Your task to perform on an android device: set the timer Image 0: 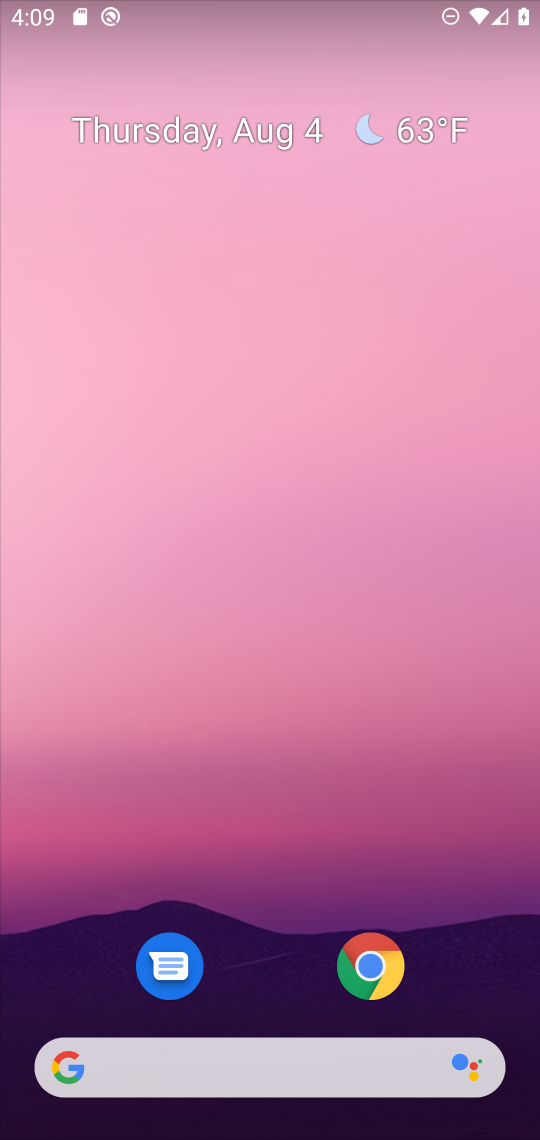
Step 0: drag from (78, 582) to (173, 220)
Your task to perform on an android device: set the timer Image 1: 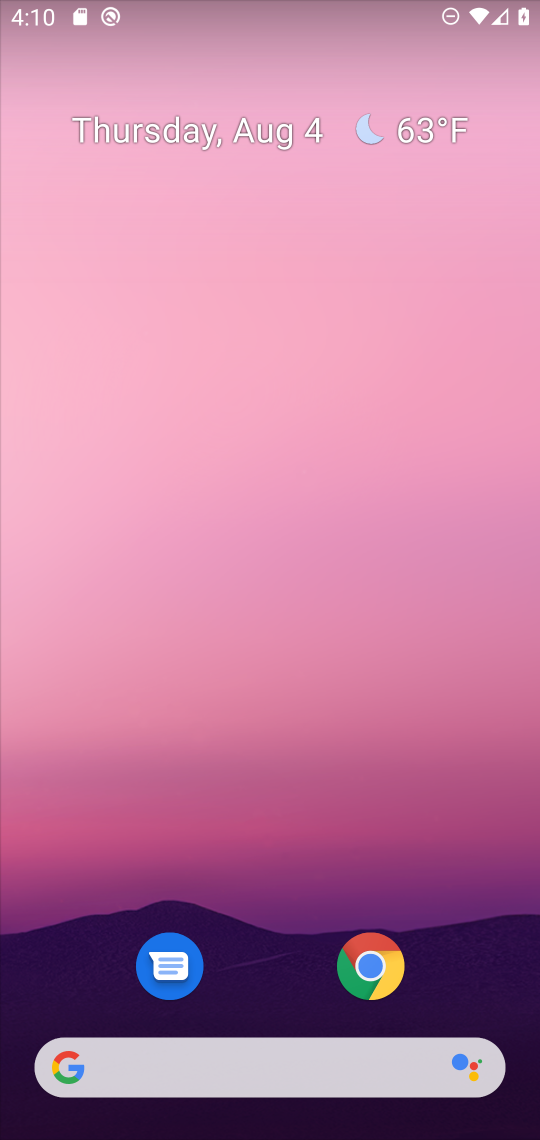
Step 1: drag from (310, 775) to (317, 200)
Your task to perform on an android device: set the timer Image 2: 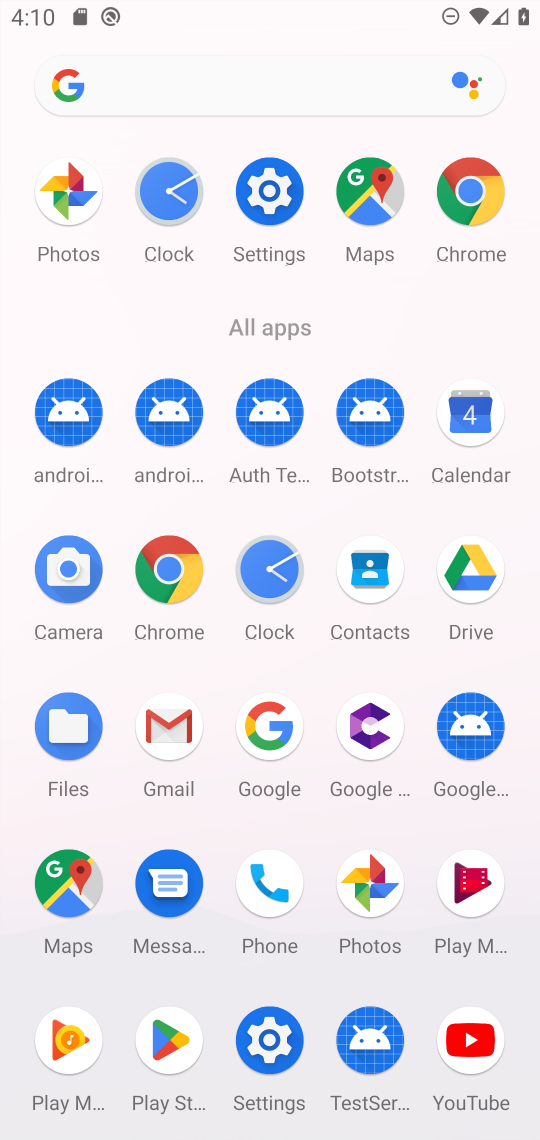
Step 2: click (286, 566)
Your task to perform on an android device: set the timer Image 3: 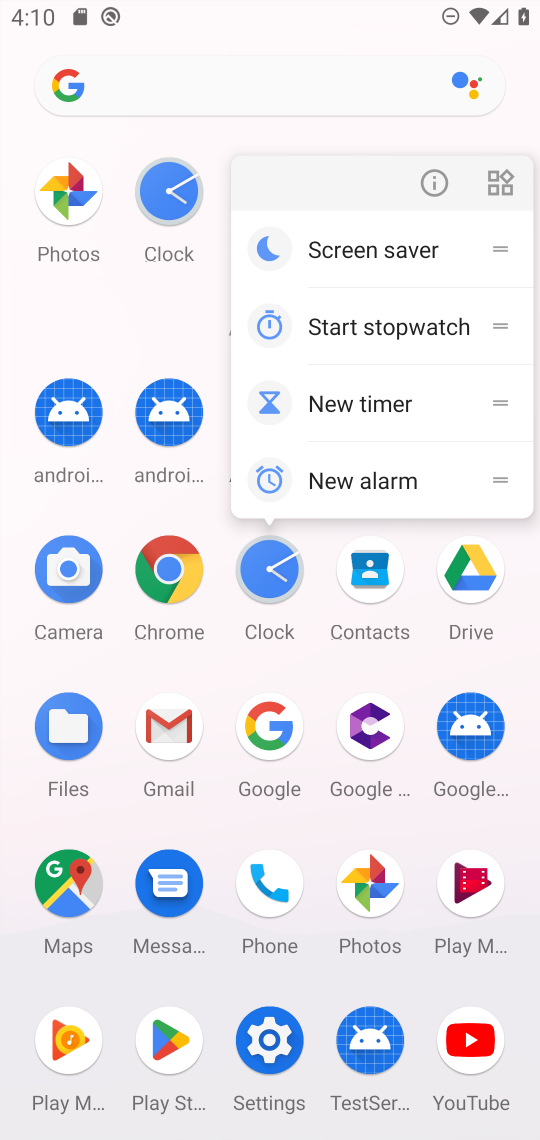
Step 3: click (286, 564)
Your task to perform on an android device: set the timer Image 4: 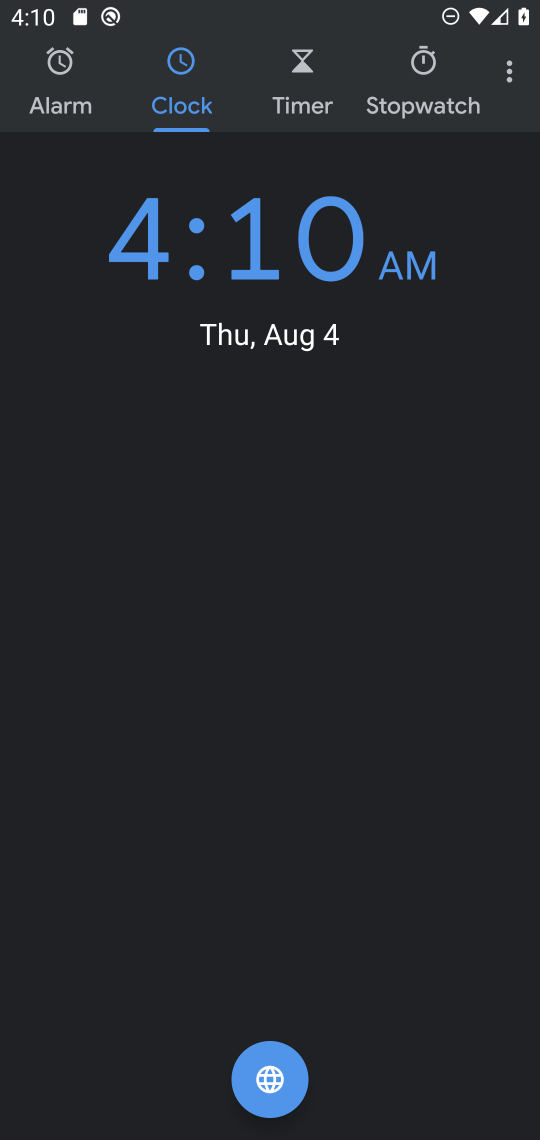
Step 4: click (277, 86)
Your task to perform on an android device: set the timer Image 5: 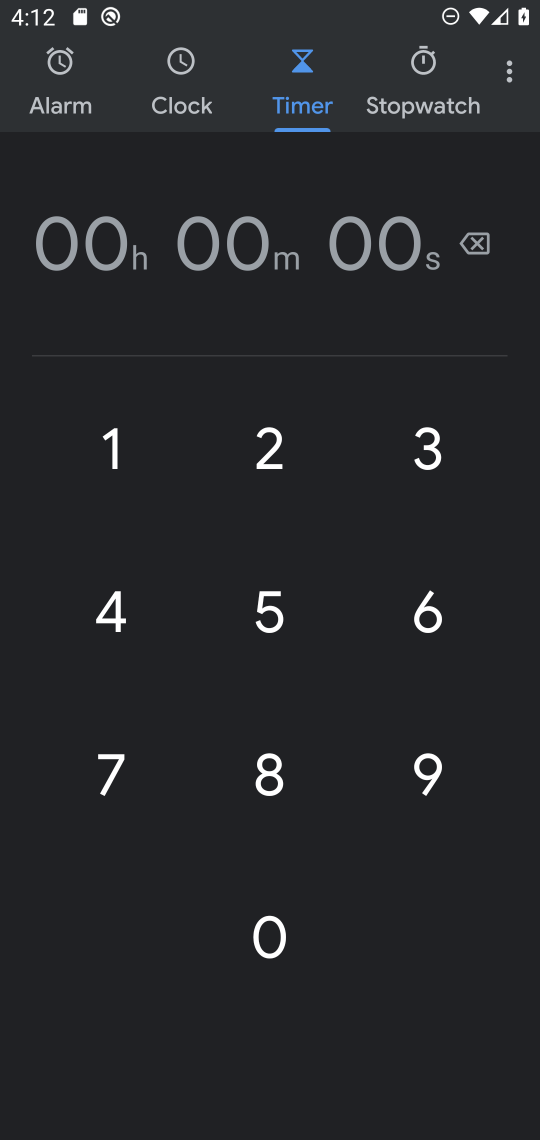
Step 5: click (251, 459)
Your task to perform on an android device: set the timer Image 6: 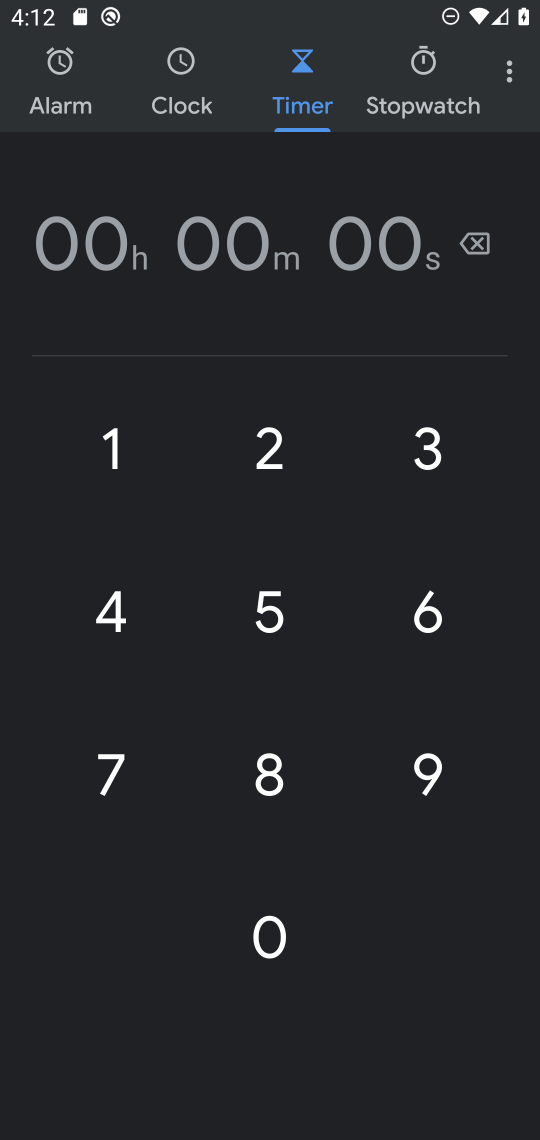
Step 6: click (249, 660)
Your task to perform on an android device: set the timer Image 7: 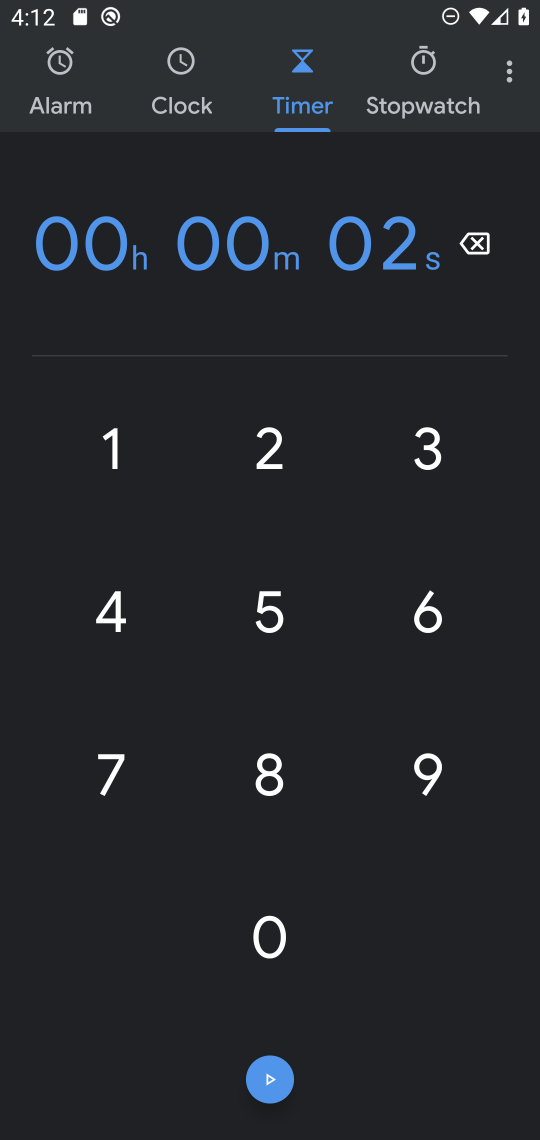
Step 7: click (231, 536)
Your task to perform on an android device: set the timer Image 8: 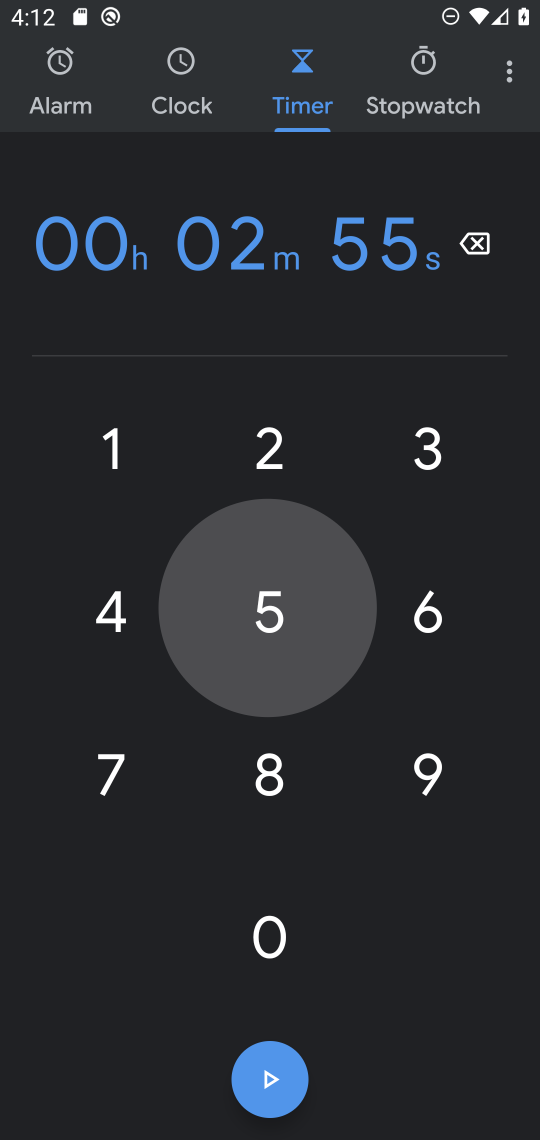
Step 8: click (247, 644)
Your task to perform on an android device: set the timer Image 9: 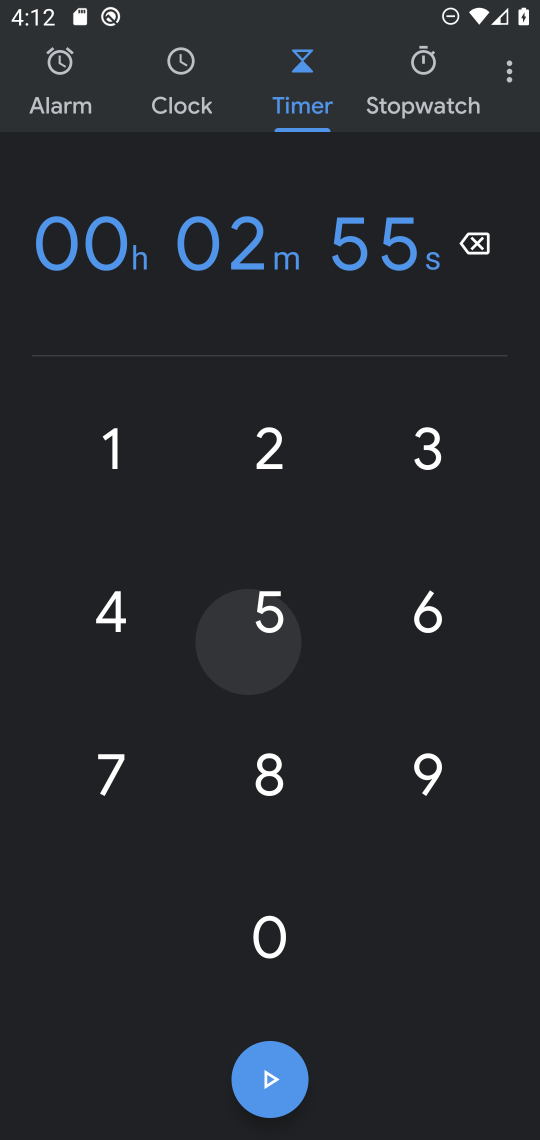
Step 9: click (214, 524)
Your task to perform on an android device: set the timer Image 10: 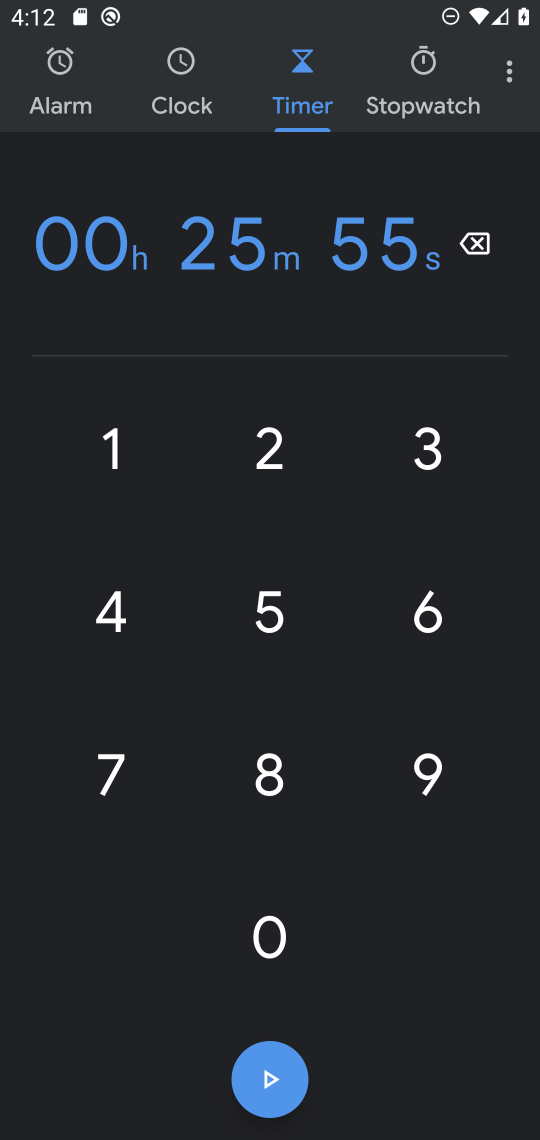
Step 10: click (219, 626)
Your task to perform on an android device: set the timer Image 11: 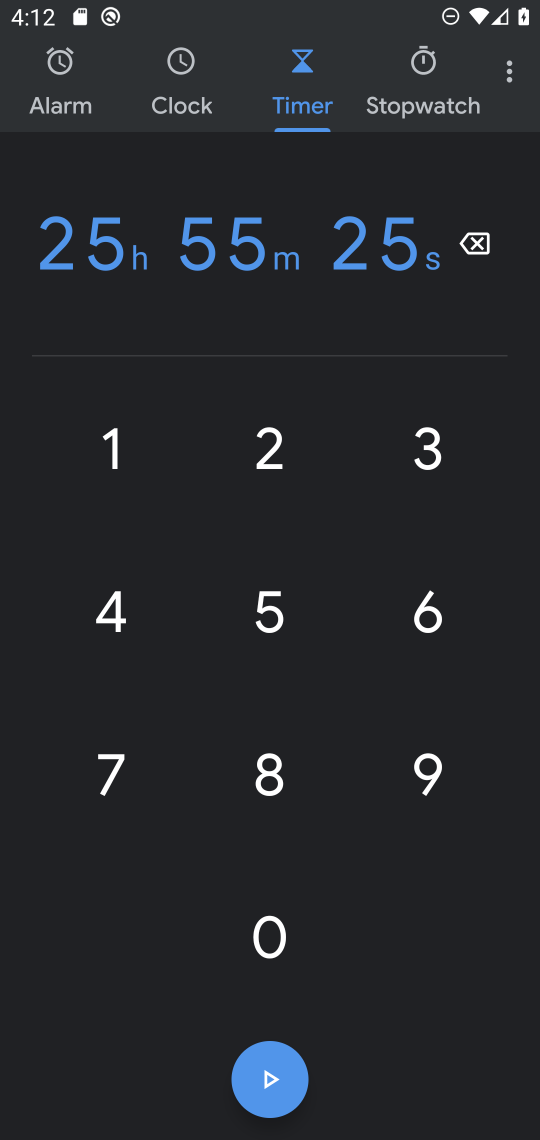
Step 11: click (258, 1091)
Your task to perform on an android device: set the timer Image 12: 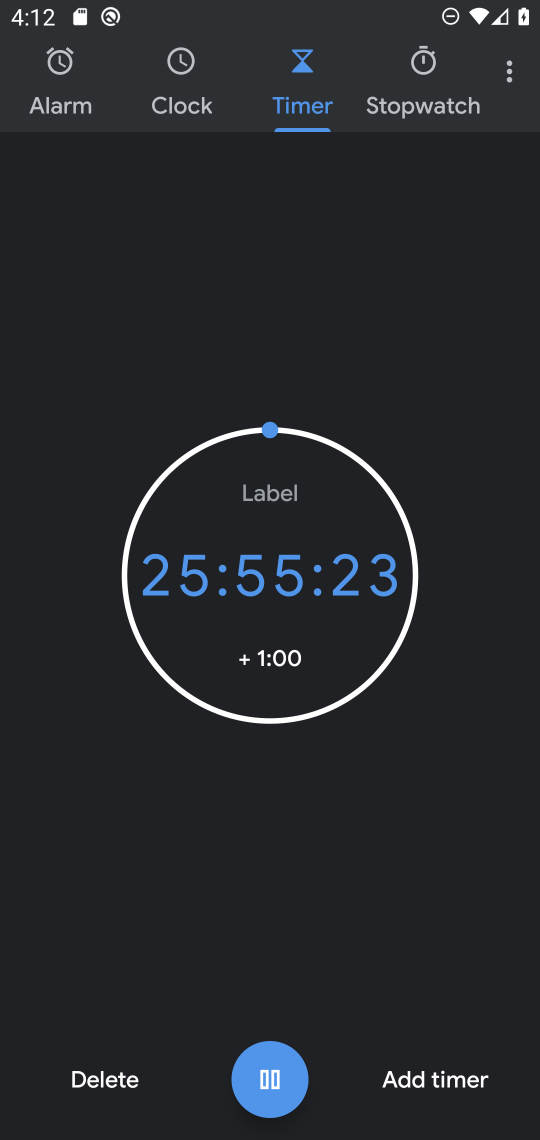
Step 12: task complete